Your task to perform on an android device: turn off location history Image 0: 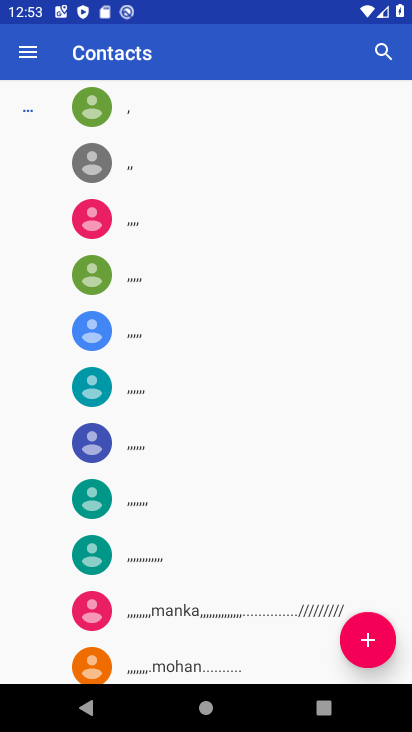
Step 0: press home button
Your task to perform on an android device: turn off location history Image 1: 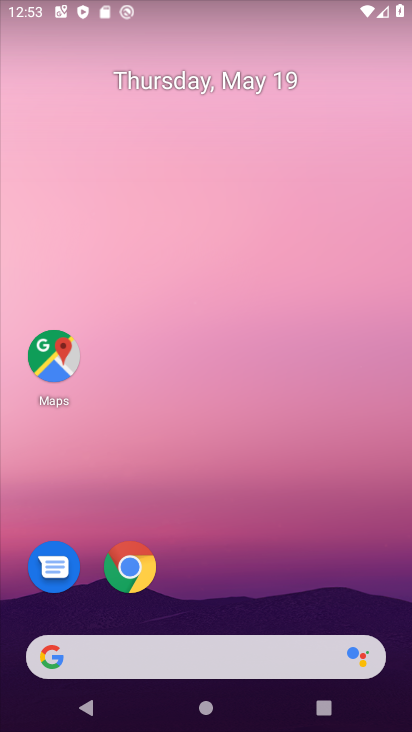
Step 1: drag from (59, 566) to (201, 185)
Your task to perform on an android device: turn off location history Image 2: 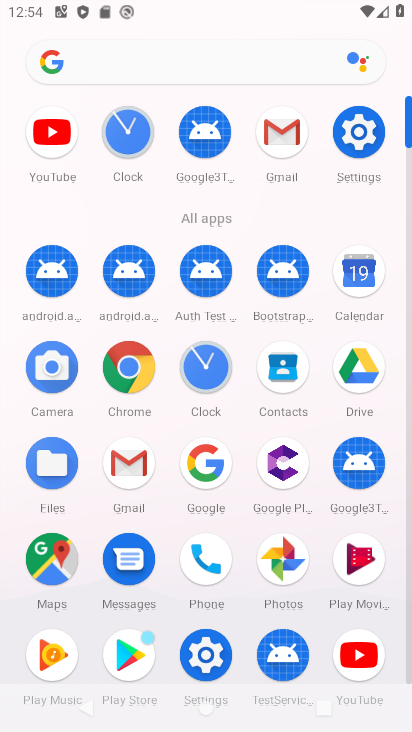
Step 2: click (353, 146)
Your task to perform on an android device: turn off location history Image 3: 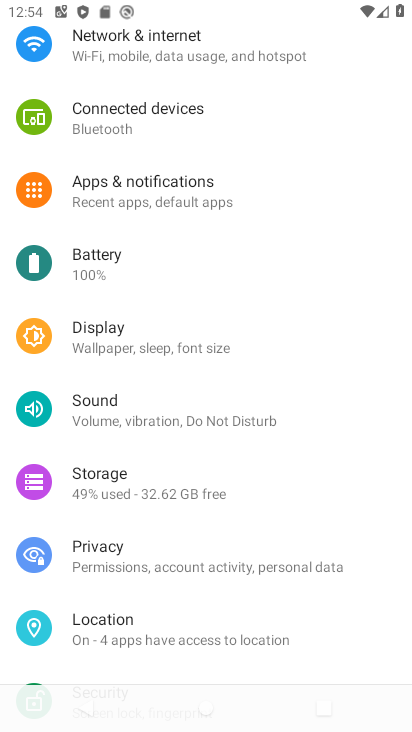
Step 3: click (137, 625)
Your task to perform on an android device: turn off location history Image 4: 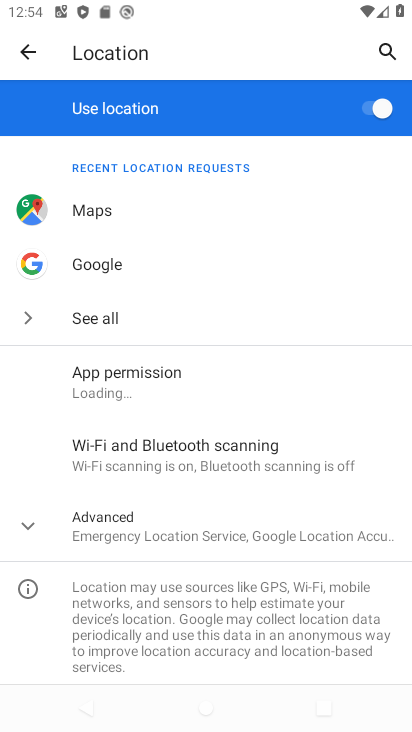
Step 4: click (155, 534)
Your task to perform on an android device: turn off location history Image 5: 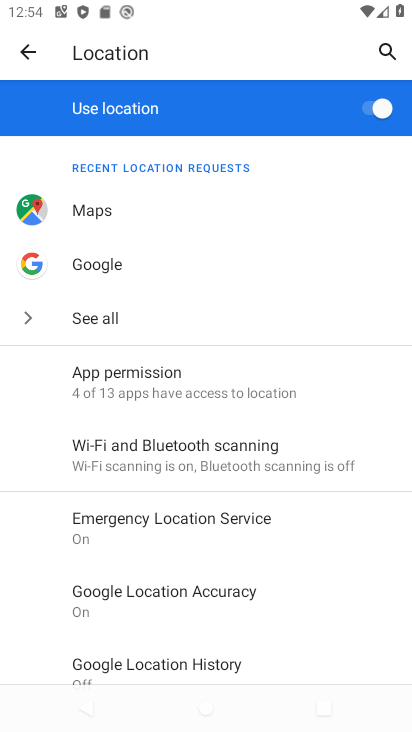
Step 5: drag from (15, 522) to (131, 335)
Your task to perform on an android device: turn off location history Image 6: 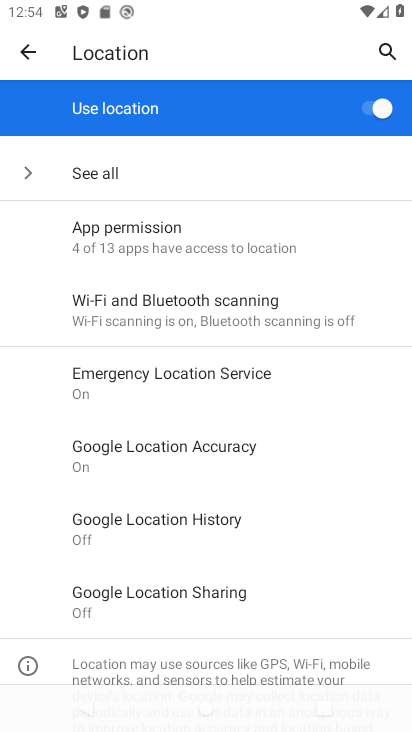
Step 6: click (196, 524)
Your task to perform on an android device: turn off location history Image 7: 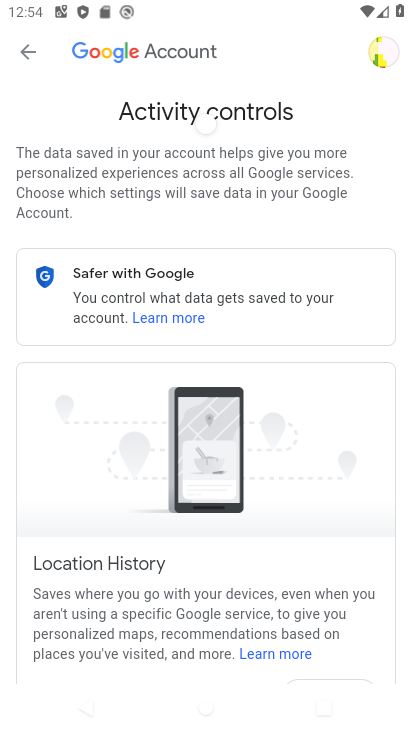
Step 7: drag from (30, 513) to (300, 105)
Your task to perform on an android device: turn off location history Image 8: 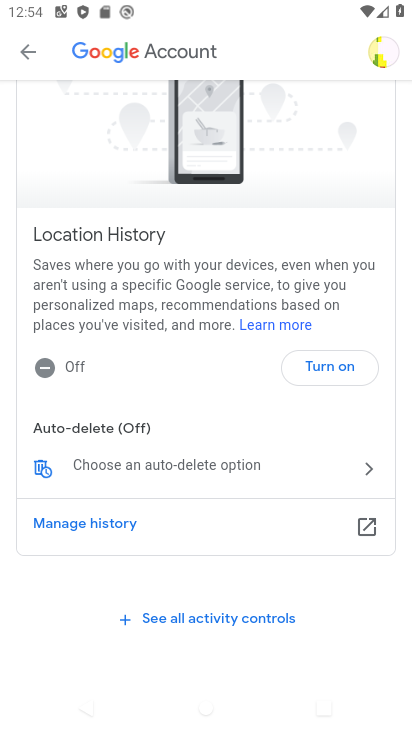
Step 8: click (308, 365)
Your task to perform on an android device: turn off location history Image 9: 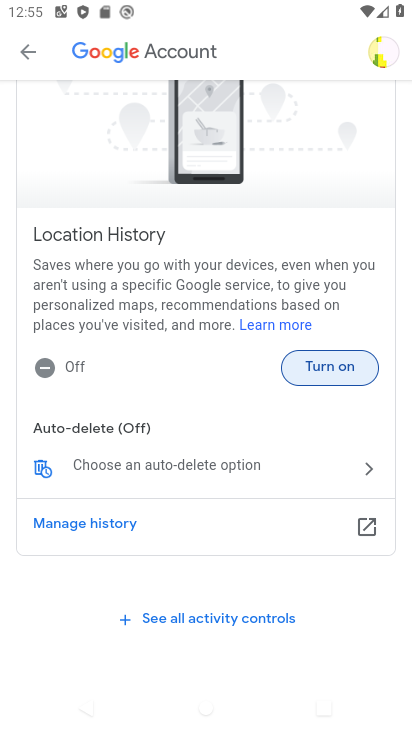
Step 9: click (323, 362)
Your task to perform on an android device: turn off location history Image 10: 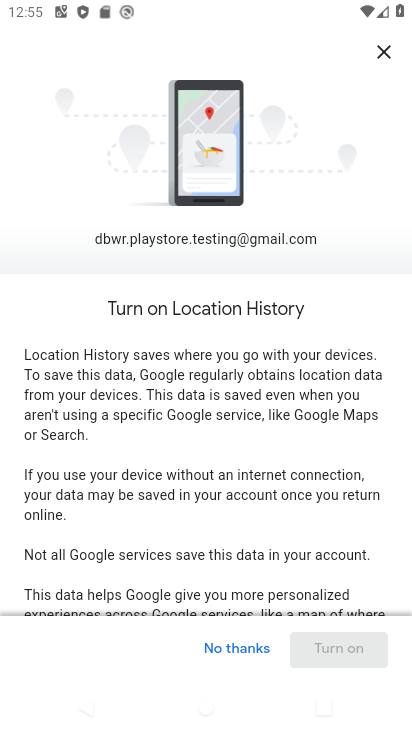
Step 10: drag from (92, 350) to (210, 111)
Your task to perform on an android device: turn off location history Image 11: 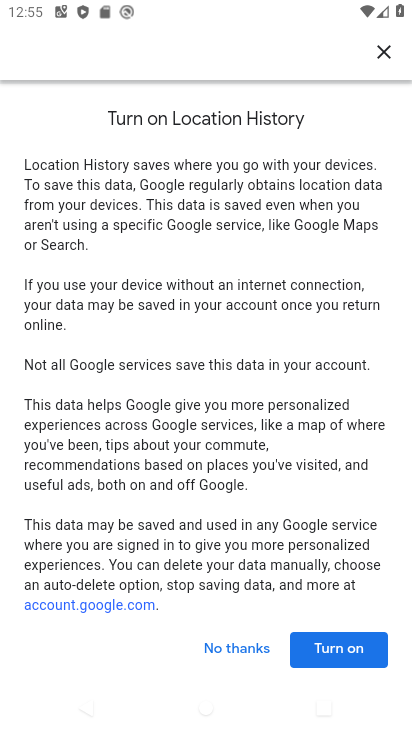
Step 11: click (300, 637)
Your task to perform on an android device: turn off location history Image 12: 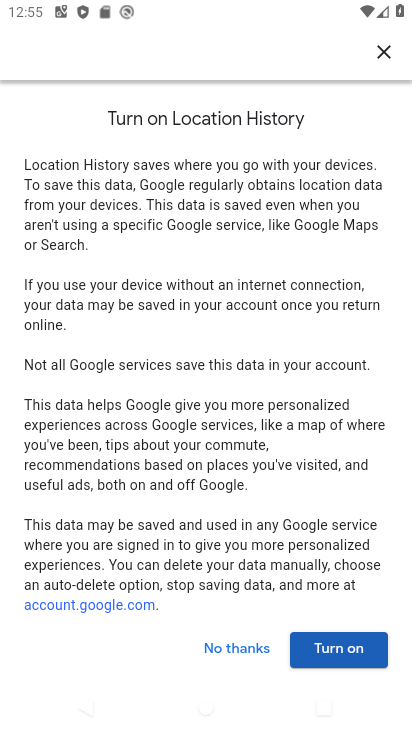
Step 12: click (332, 656)
Your task to perform on an android device: turn off location history Image 13: 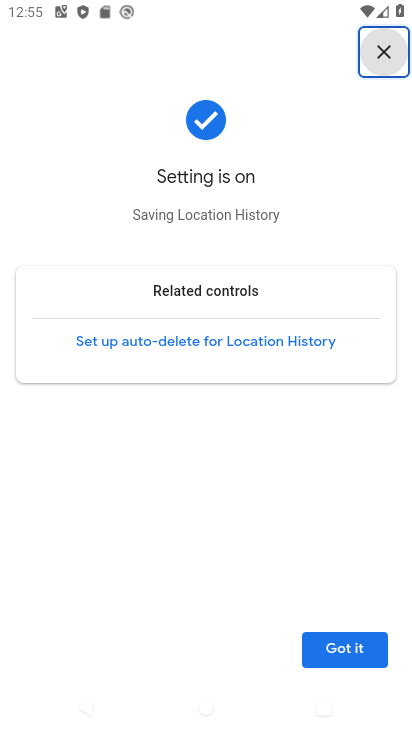
Step 13: task complete